Your task to perform on an android device: Open Google Maps Image 0: 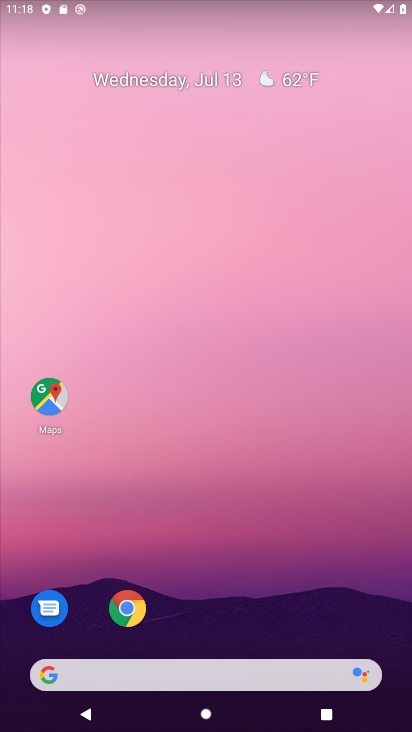
Step 0: drag from (242, 721) to (240, 133)
Your task to perform on an android device: Open Google Maps Image 1: 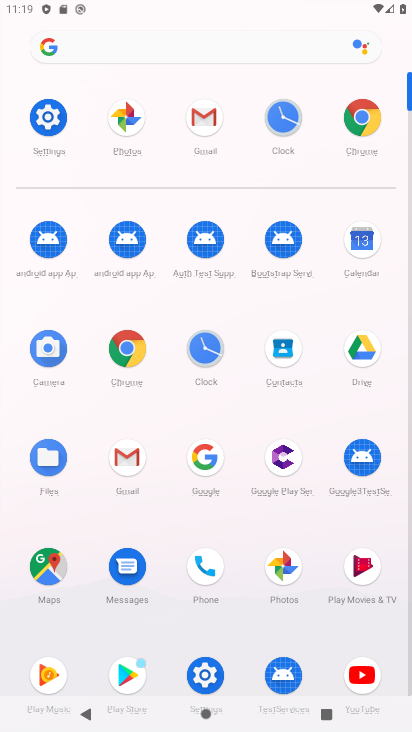
Step 1: click (52, 563)
Your task to perform on an android device: Open Google Maps Image 2: 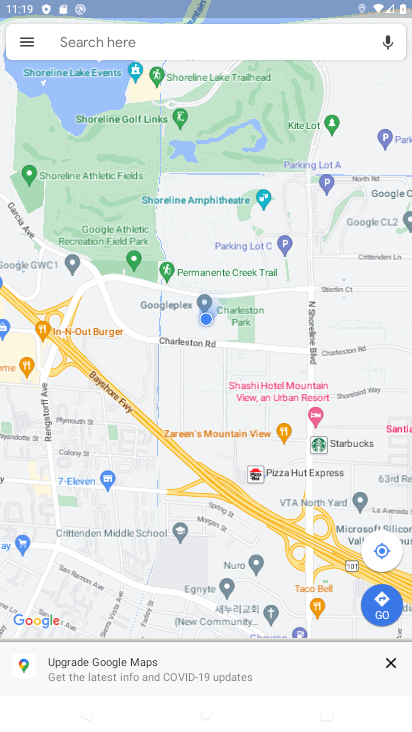
Step 2: task complete